Your task to perform on an android device: set default search engine in the chrome app Image 0: 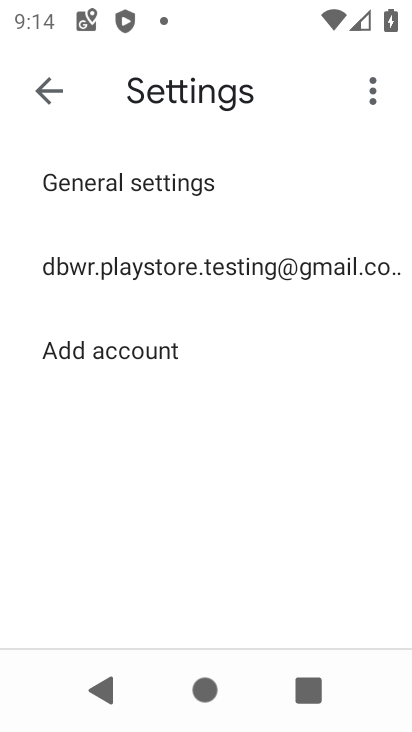
Step 0: press home button
Your task to perform on an android device: set default search engine in the chrome app Image 1: 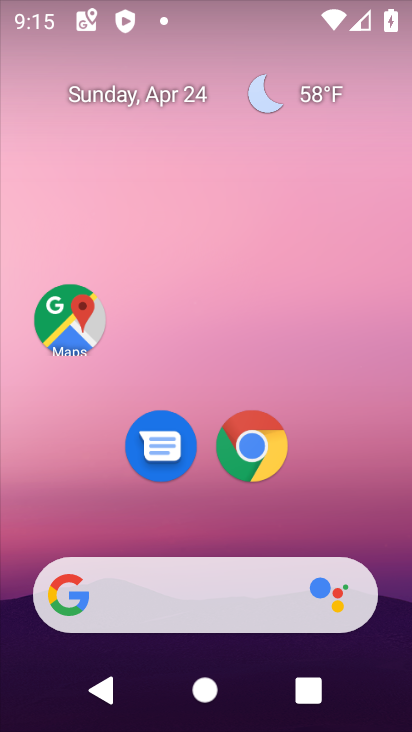
Step 1: click (256, 453)
Your task to perform on an android device: set default search engine in the chrome app Image 2: 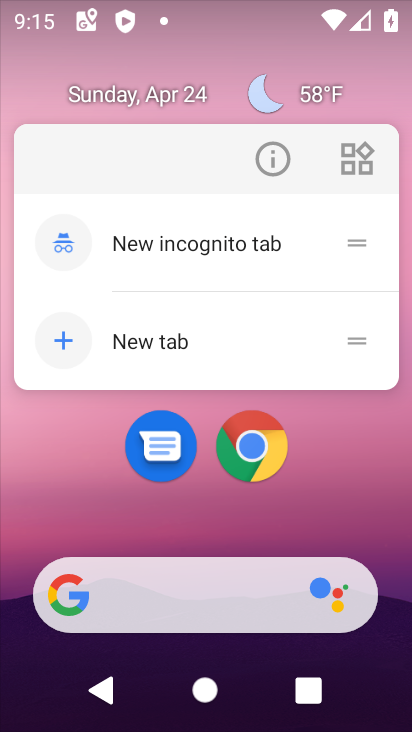
Step 2: click (248, 457)
Your task to perform on an android device: set default search engine in the chrome app Image 3: 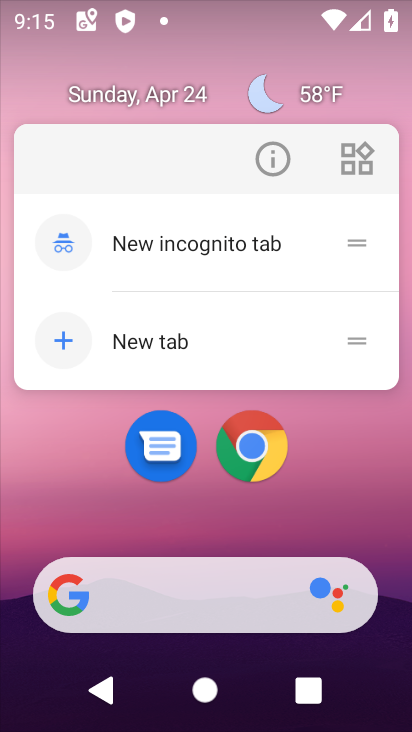
Step 3: click (264, 456)
Your task to perform on an android device: set default search engine in the chrome app Image 4: 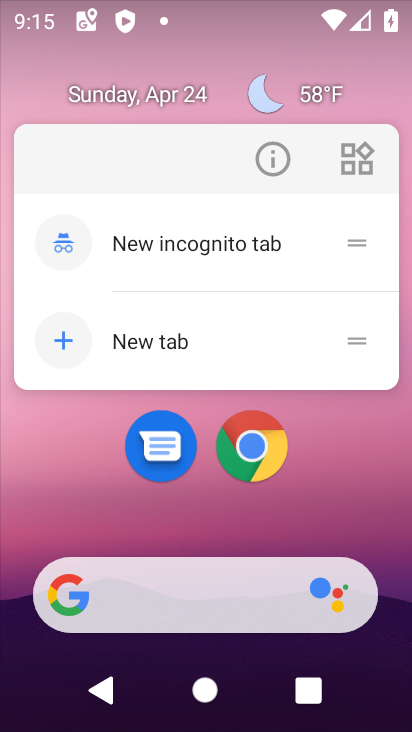
Step 4: click (253, 446)
Your task to perform on an android device: set default search engine in the chrome app Image 5: 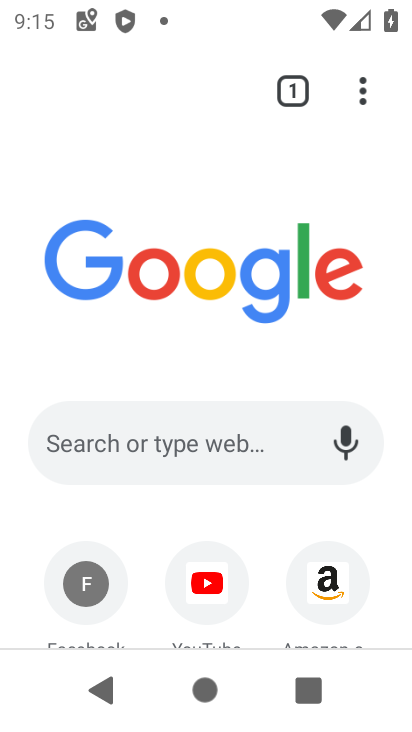
Step 5: click (362, 101)
Your task to perform on an android device: set default search engine in the chrome app Image 6: 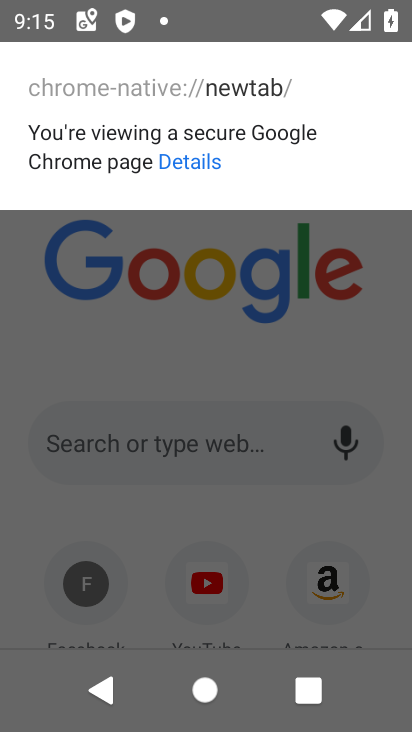
Step 6: press back button
Your task to perform on an android device: set default search engine in the chrome app Image 7: 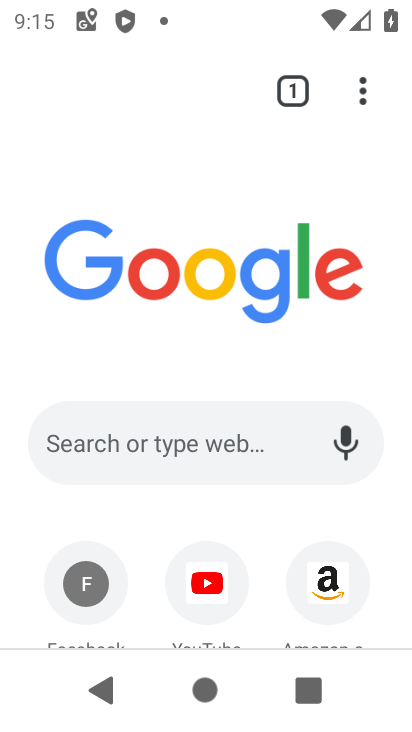
Step 7: drag from (362, 89) to (121, 465)
Your task to perform on an android device: set default search engine in the chrome app Image 8: 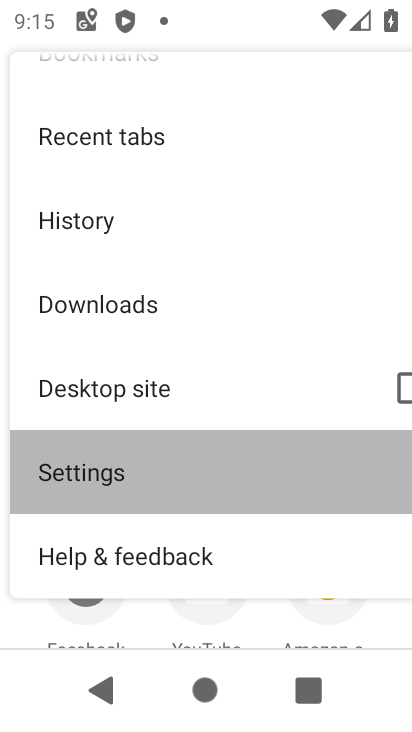
Step 8: click (121, 465)
Your task to perform on an android device: set default search engine in the chrome app Image 9: 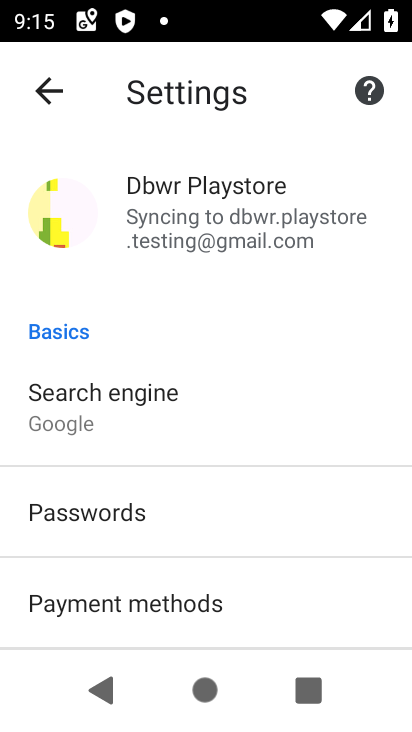
Step 9: click (119, 426)
Your task to perform on an android device: set default search engine in the chrome app Image 10: 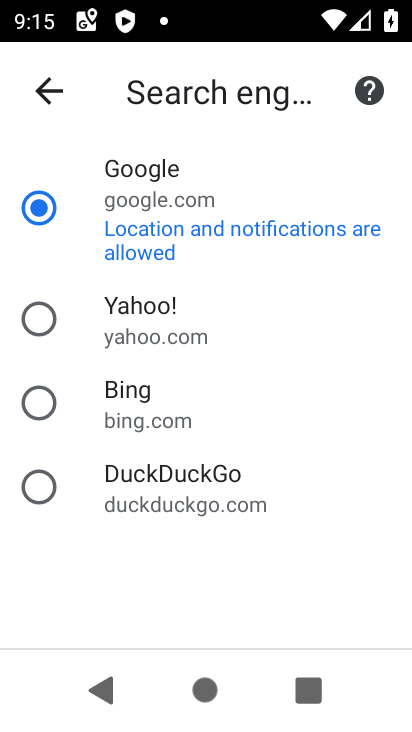
Step 10: click (40, 311)
Your task to perform on an android device: set default search engine in the chrome app Image 11: 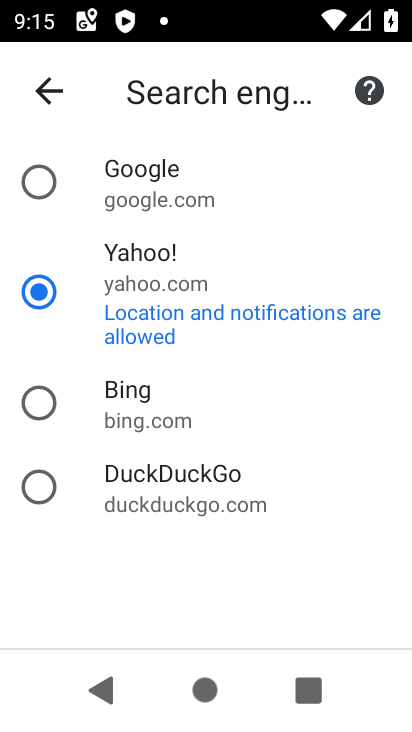
Step 11: task complete